Your task to perform on an android device: turn off translation in the chrome app Image 0: 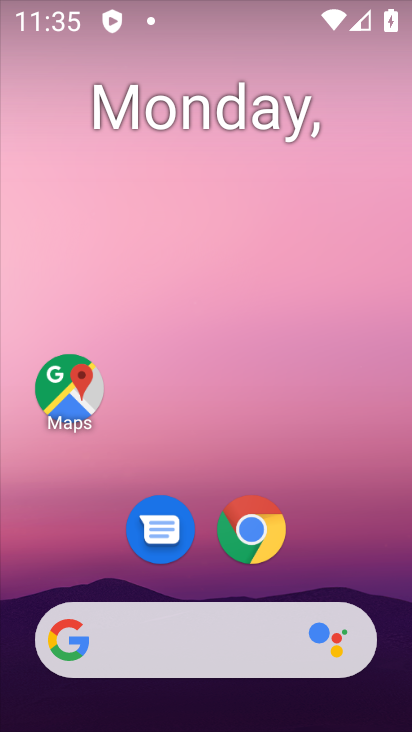
Step 0: drag from (390, 546) to (337, 160)
Your task to perform on an android device: turn off translation in the chrome app Image 1: 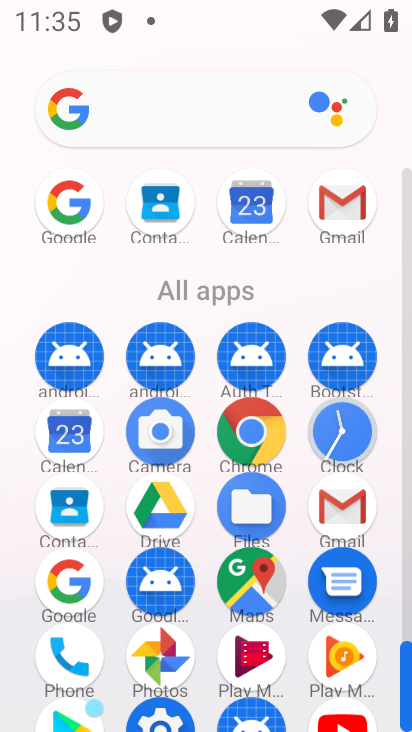
Step 1: click (257, 440)
Your task to perform on an android device: turn off translation in the chrome app Image 2: 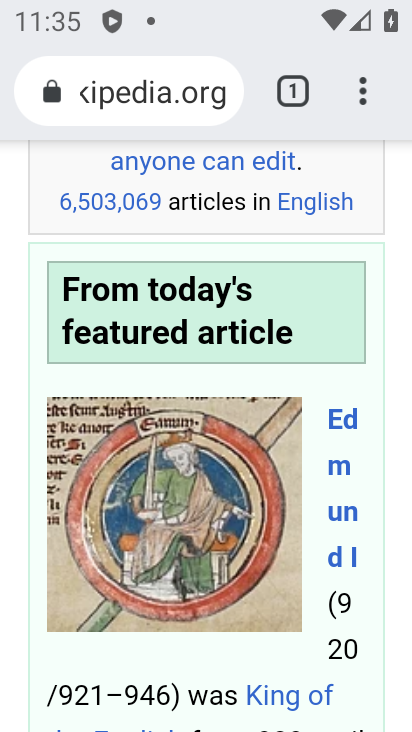
Step 2: drag from (362, 88) to (225, 569)
Your task to perform on an android device: turn off translation in the chrome app Image 3: 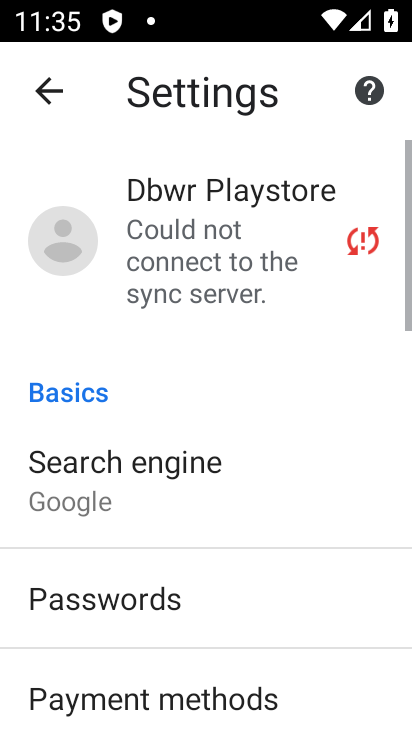
Step 3: drag from (258, 651) to (257, 309)
Your task to perform on an android device: turn off translation in the chrome app Image 4: 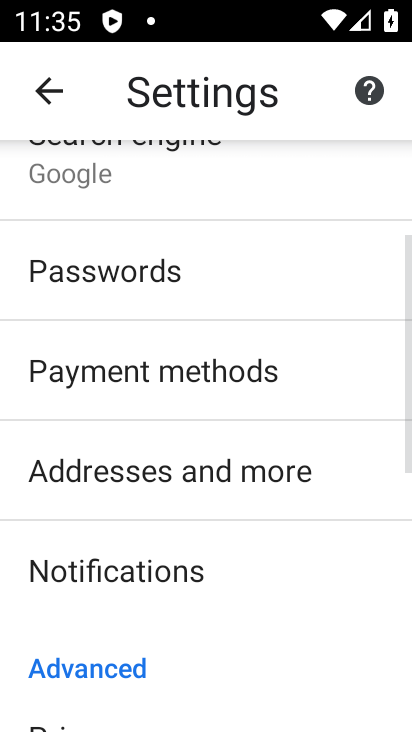
Step 4: drag from (297, 549) to (289, 312)
Your task to perform on an android device: turn off translation in the chrome app Image 5: 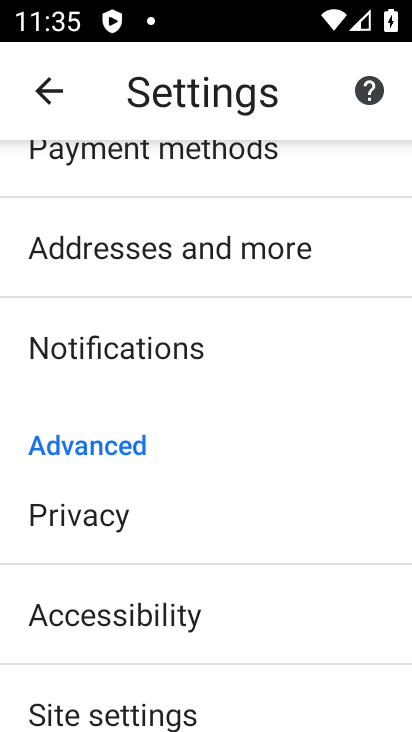
Step 5: drag from (289, 643) to (245, 330)
Your task to perform on an android device: turn off translation in the chrome app Image 6: 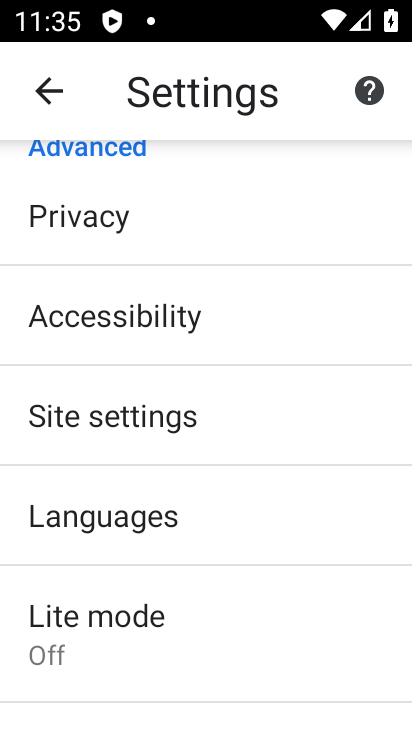
Step 6: click (176, 518)
Your task to perform on an android device: turn off translation in the chrome app Image 7: 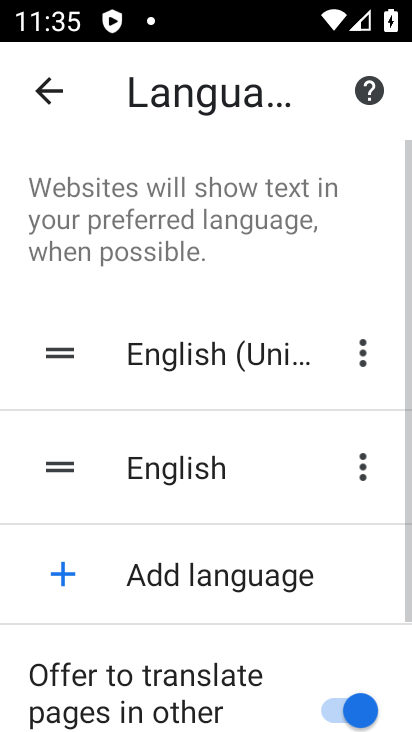
Step 7: drag from (277, 667) to (248, 311)
Your task to perform on an android device: turn off translation in the chrome app Image 8: 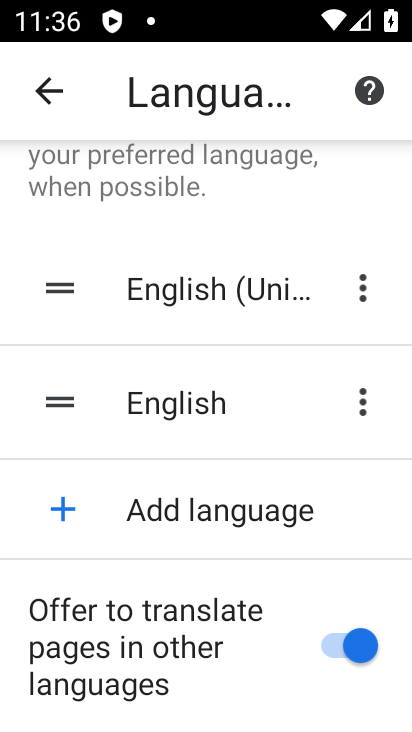
Step 8: click (328, 649)
Your task to perform on an android device: turn off translation in the chrome app Image 9: 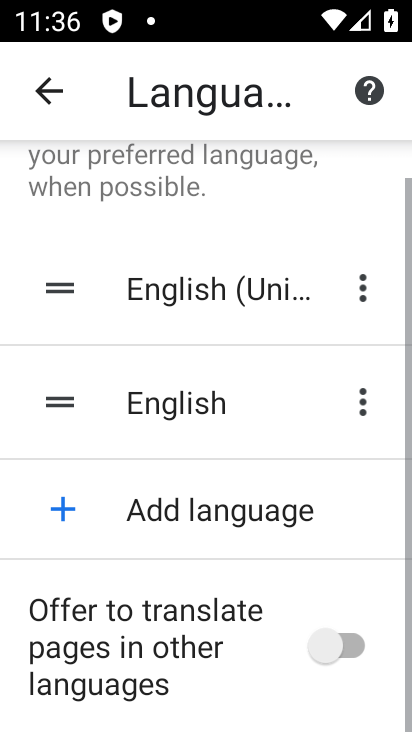
Step 9: task complete